Your task to perform on an android device: Check the news Image 0: 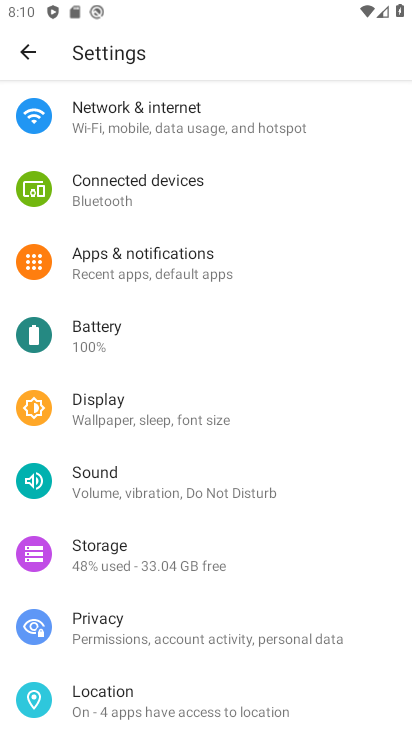
Step 0: click (166, 486)
Your task to perform on an android device: Check the news Image 1: 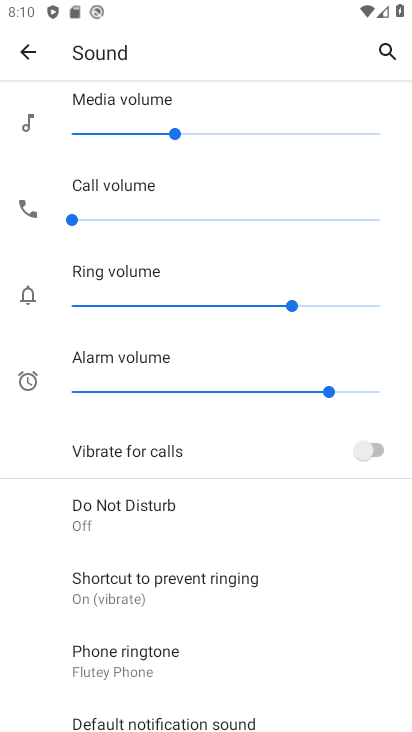
Step 1: task complete